Your task to perform on an android device: Go to ESPN.com Image 0: 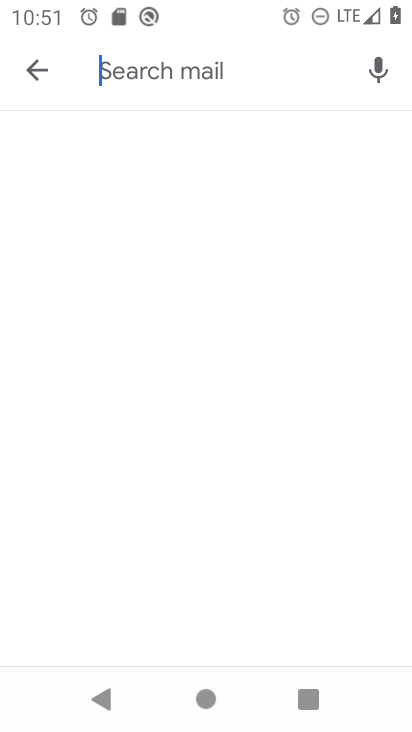
Step 0: press home button
Your task to perform on an android device: Go to ESPN.com Image 1: 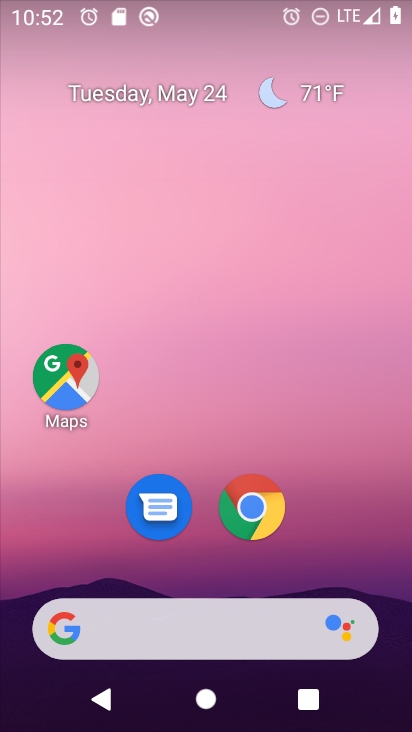
Step 1: click (249, 510)
Your task to perform on an android device: Go to ESPN.com Image 2: 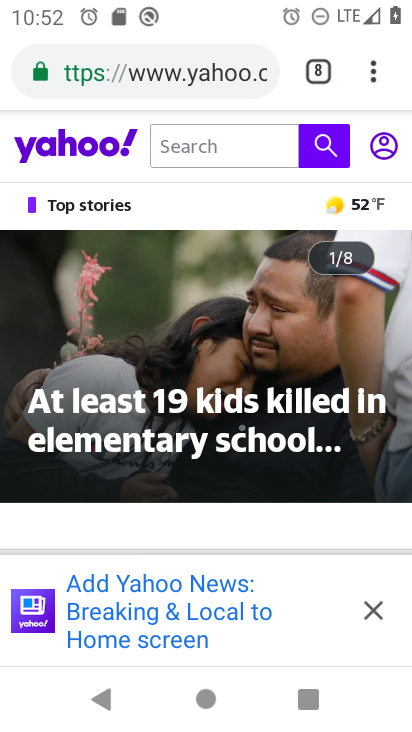
Step 2: click (373, 78)
Your task to perform on an android device: Go to ESPN.com Image 3: 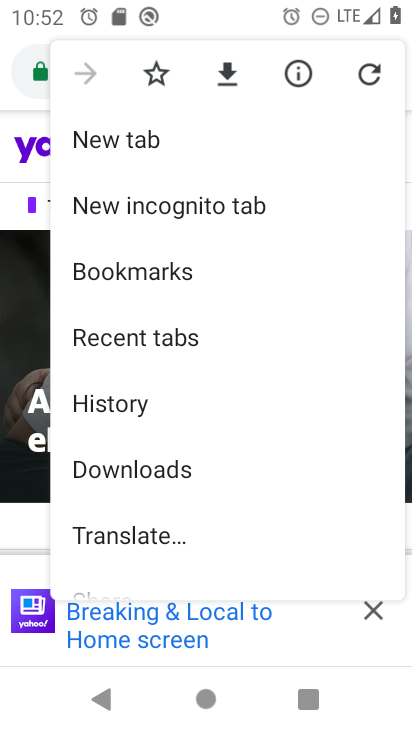
Step 3: click (115, 144)
Your task to perform on an android device: Go to ESPN.com Image 4: 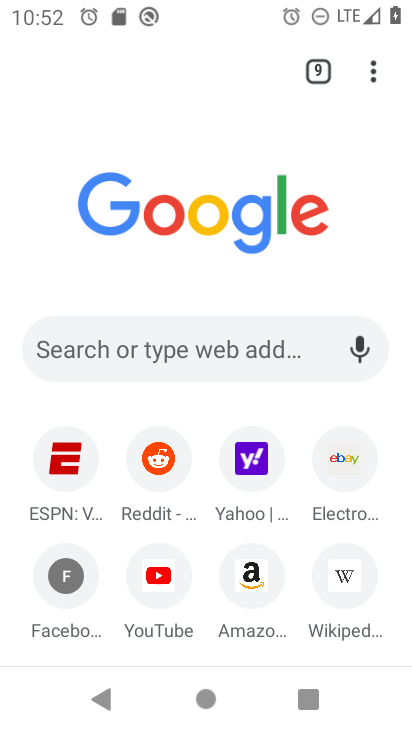
Step 4: click (64, 473)
Your task to perform on an android device: Go to ESPN.com Image 5: 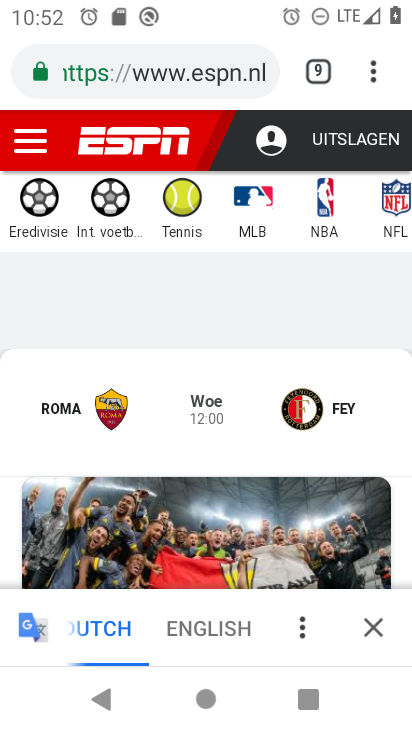
Step 5: task complete